Your task to perform on an android device: Search for logitech g pro on costco.com, select the first entry, and add it to the cart. Image 0: 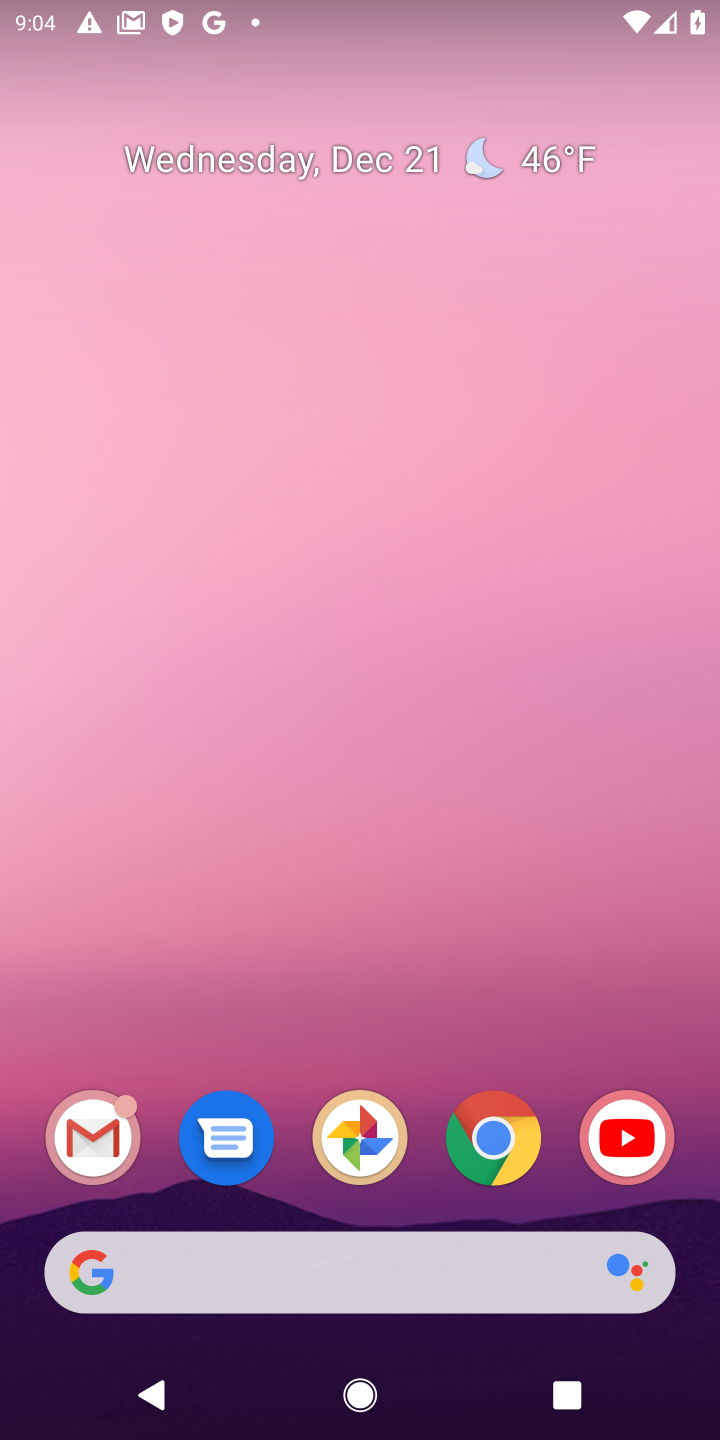
Step 0: click (491, 1138)
Your task to perform on an android device: Search for logitech g pro on costco.com, select the first entry, and add it to the cart. Image 1: 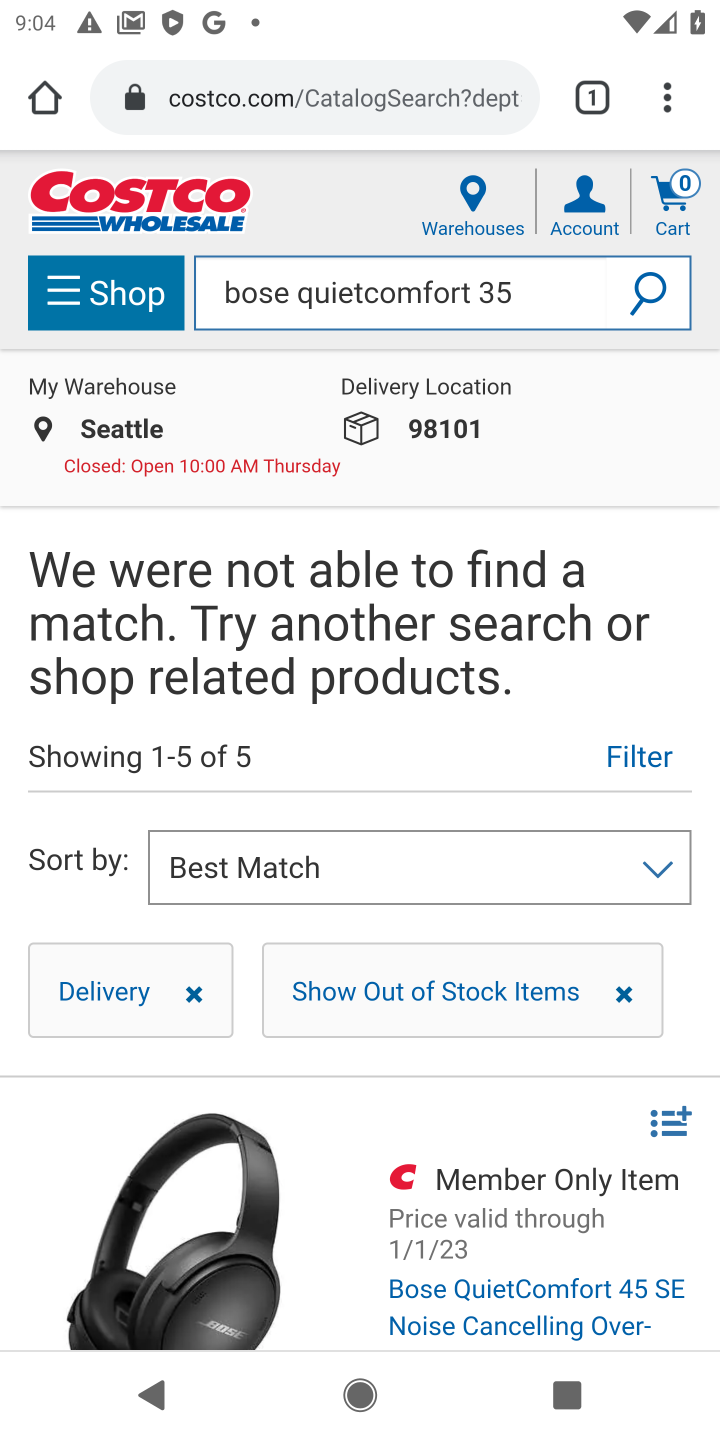
Step 1: click (308, 291)
Your task to perform on an android device: Search for logitech g pro on costco.com, select the first entry, and add it to the cart. Image 2: 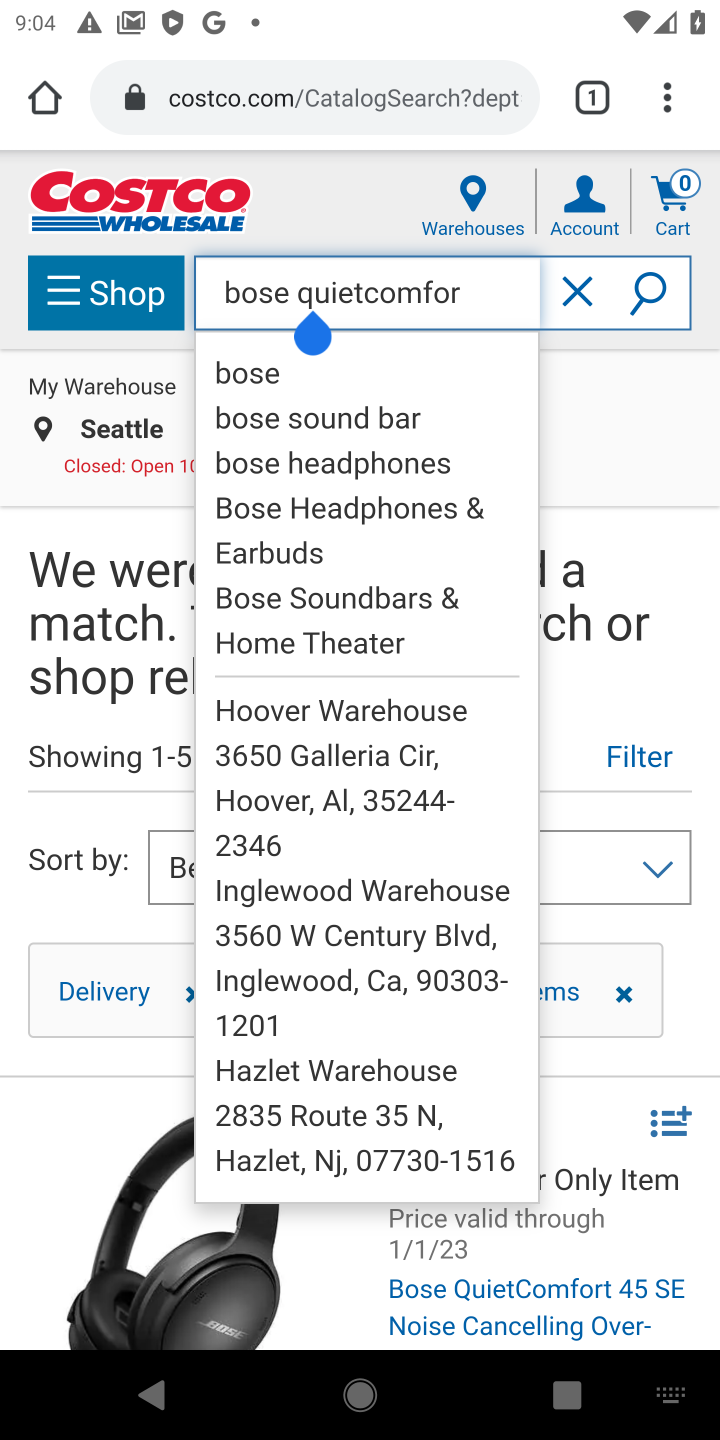
Step 2: click (575, 294)
Your task to perform on an android device: Search for logitech g pro on costco.com, select the first entry, and add it to the cart. Image 3: 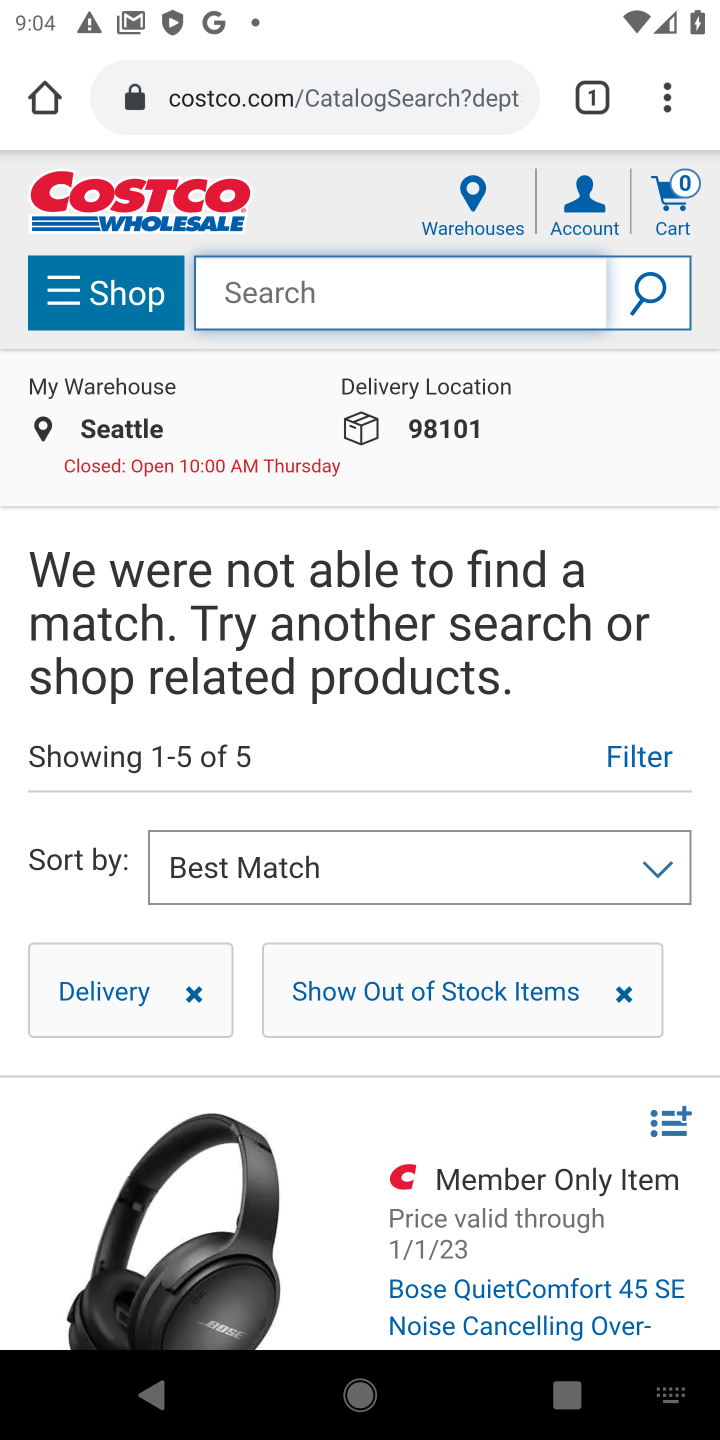
Step 3: type "logitech g pro"
Your task to perform on an android device: Search for logitech g pro on costco.com, select the first entry, and add it to the cart. Image 4: 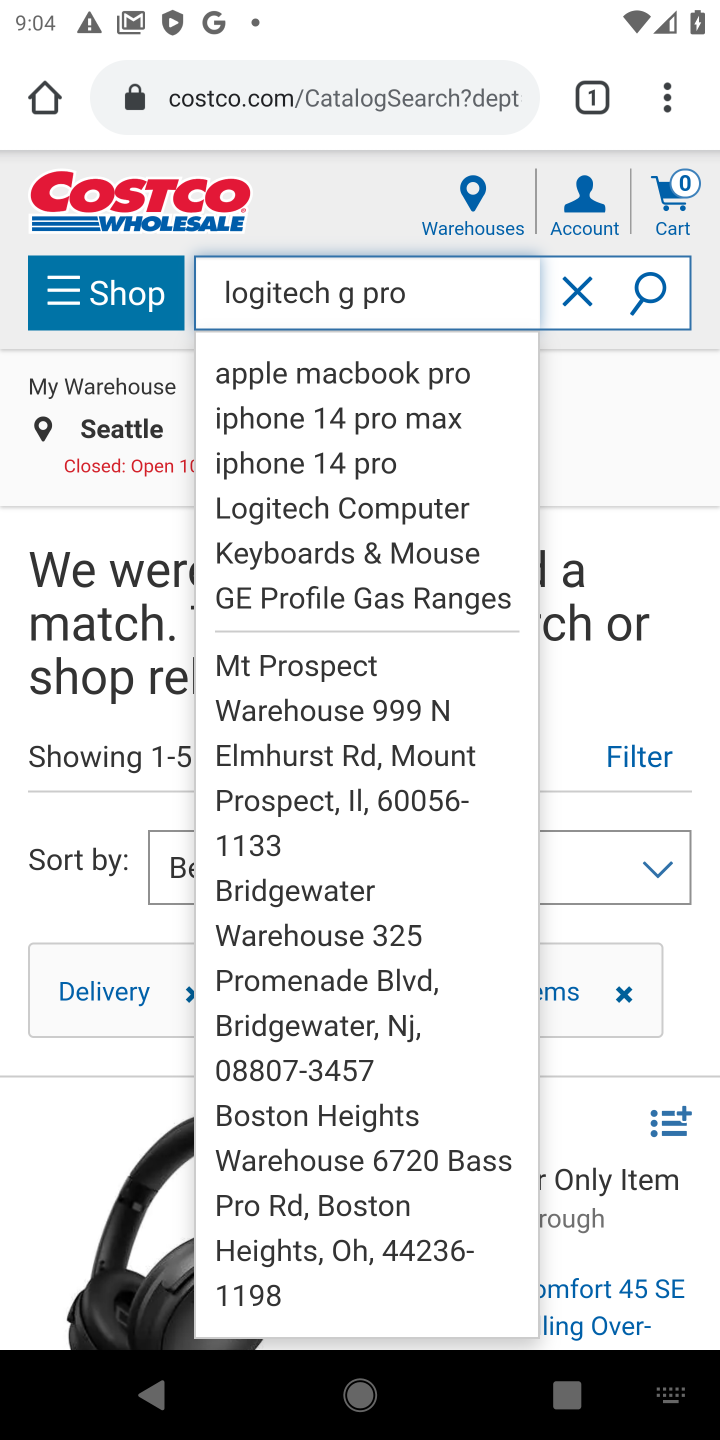
Step 4: click (647, 296)
Your task to perform on an android device: Search for logitech g pro on costco.com, select the first entry, and add it to the cart. Image 5: 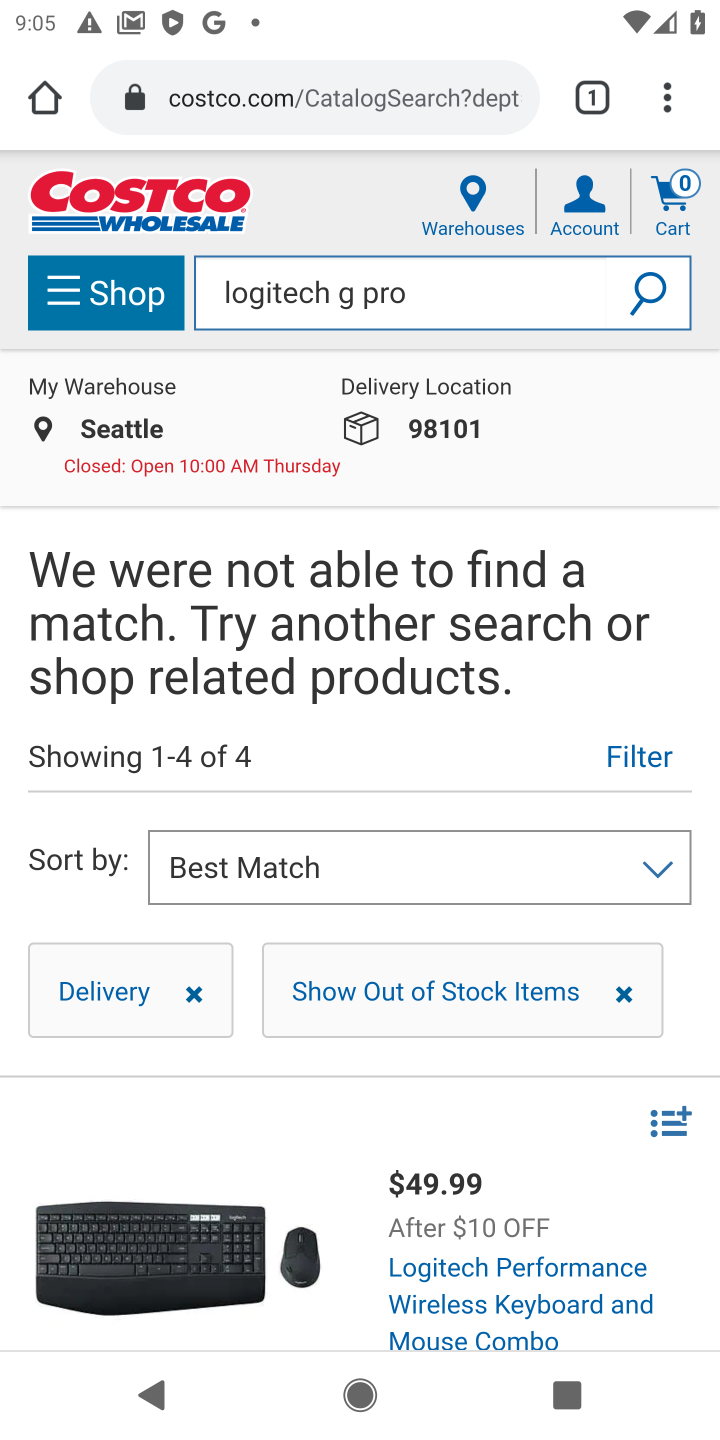
Step 5: task complete